Your task to perform on an android device: Show me popular games on the Play Store Image 0: 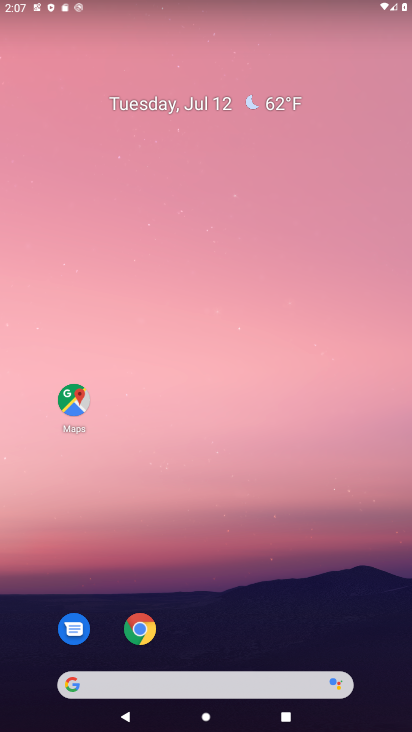
Step 0: press home button
Your task to perform on an android device: Show me popular games on the Play Store Image 1: 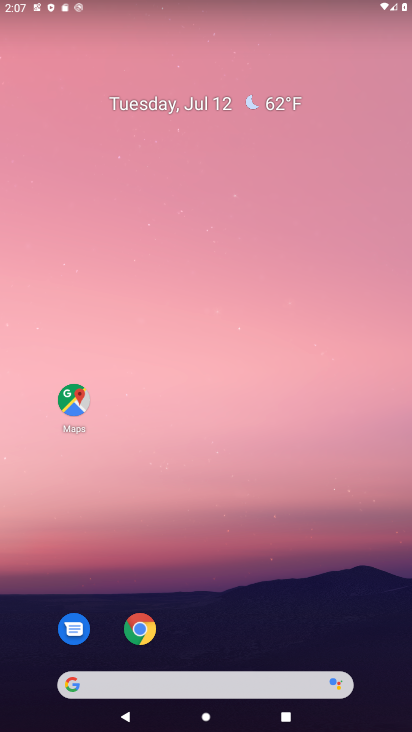
Step 1: drag from (207, 655) to (232, 11)
Your task to perform on an android device: Show me popular games on the Play Store Image 2: 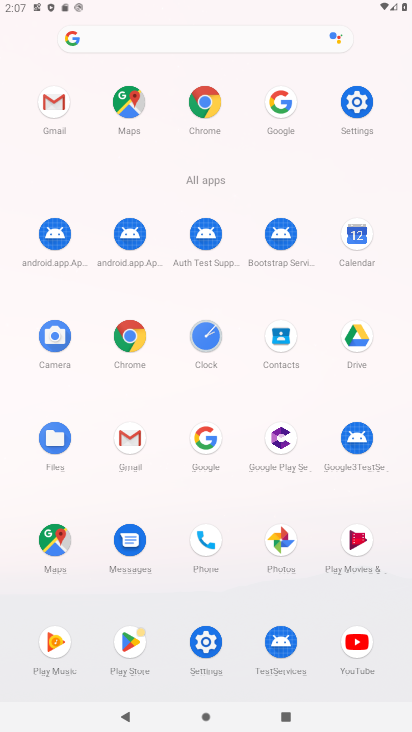
Step 2: click (127, 634)
Your task to perform on an android device: Show me popular games on the Play Store Image 3: 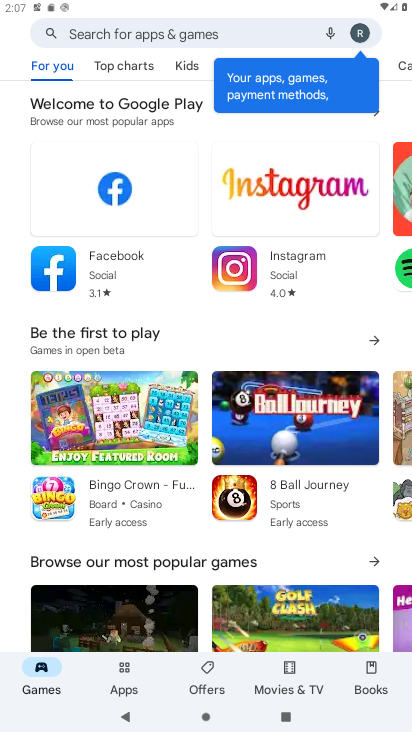
Step 3: click (373, 560)
Your task to perform on an android device: Show me popular games on the Play Store Image 4: 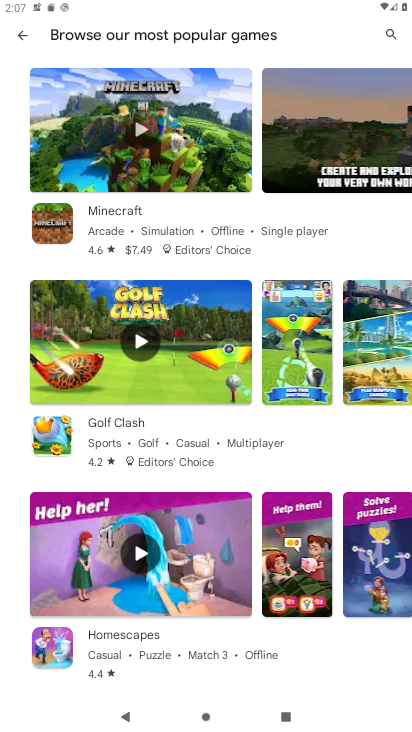
Step 4: task complete